Your task to perform on an android device: change timer sound Image 0: 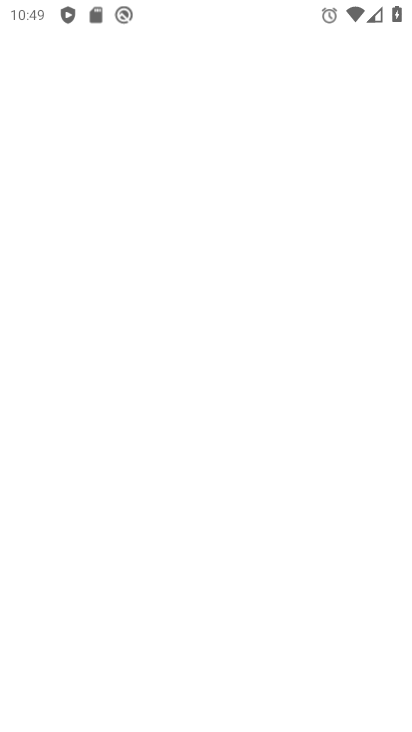
Step 0: drag from (341, 575) to (301, 154)
Your task to perform on an android device: change timer sound Image 1: 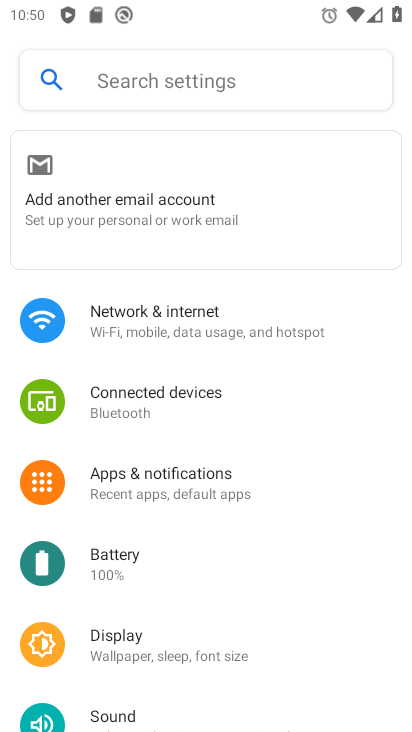
Step 1: click (170, 82)
Your task to perform on an android device: change timer sound Image 2: 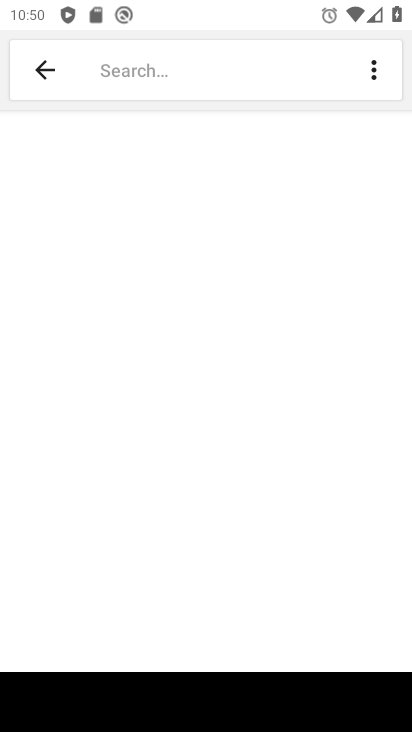
Step 2: press home button
Your task to perform on an android device: change timer sound Image 3: 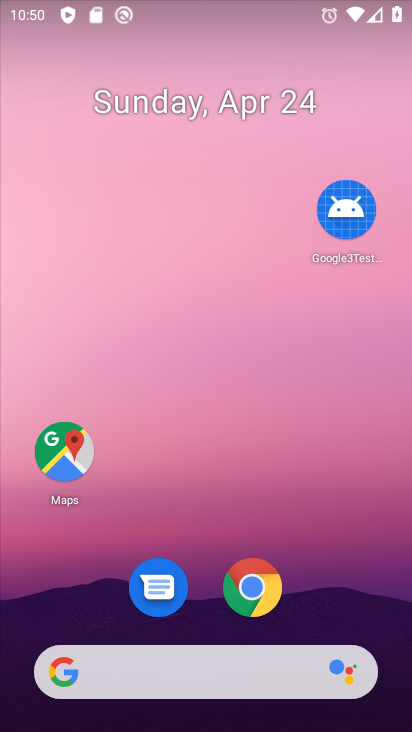
Step 3: drag from (376, 582) to (319, 37)
Your task to perform on an android device: change timer sound Image 4: 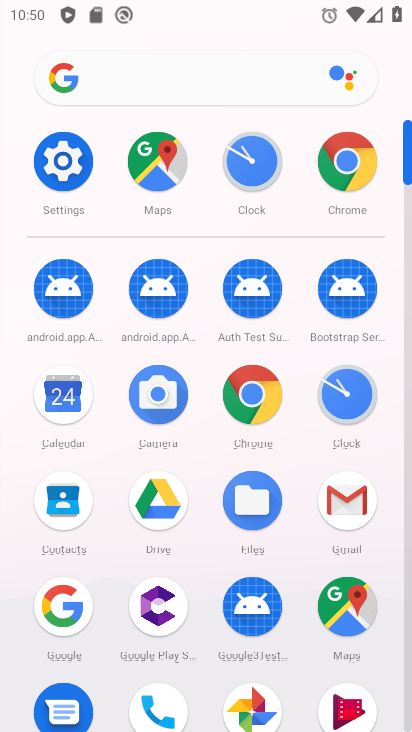
Step 4: drag from (291, 558) to (303, 199)
Your task to perform on an android device: change timer sound Image 5: 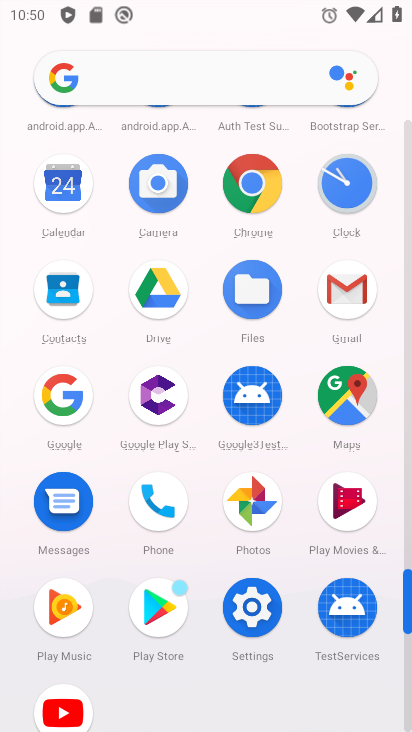
Step 5: click (342, 187)
Your task to perform on an android device: change timer sound Image 6: 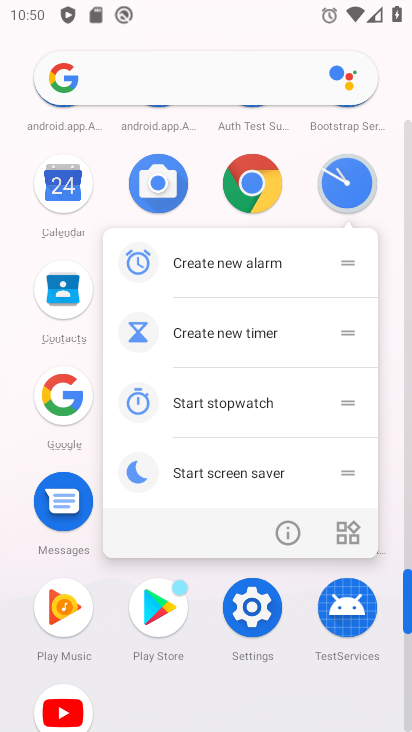
Step 6: click (333, 192)
Your task to perform on an android device: change timer sound Image 7: 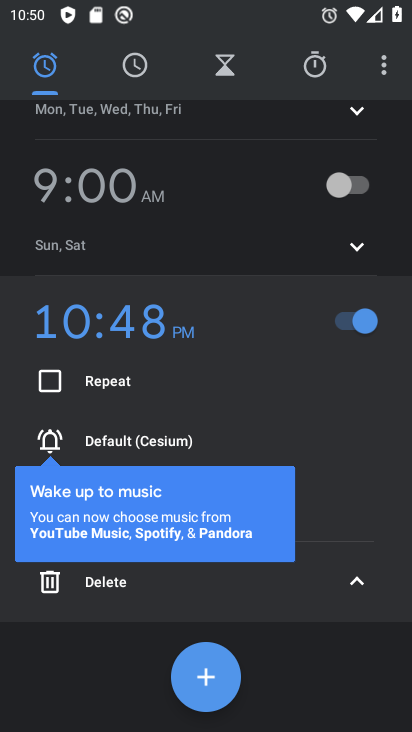
Step 7: click (390, 71)
Your task to perform on an android device: change timer sound Image 8: 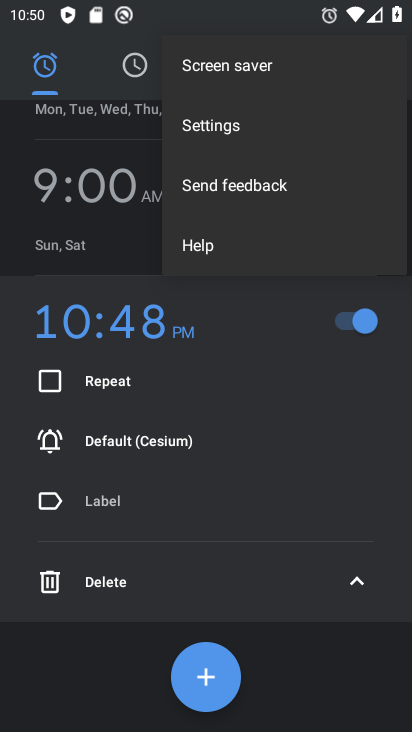
Step 8: click (247, 122)
Your task to perform on an android device: change timer sound Image 9: 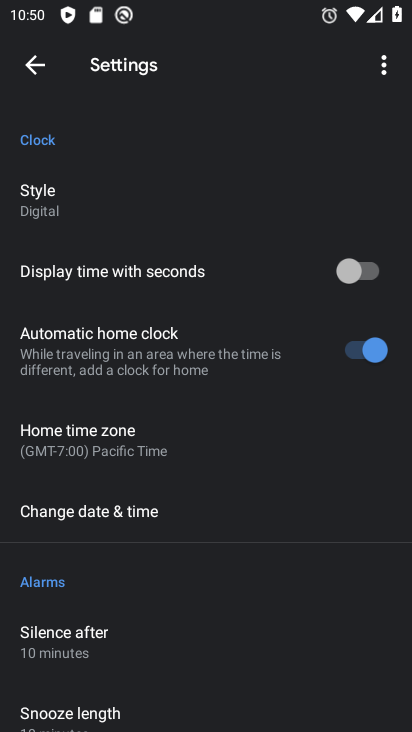
Step 9: drag from (206, 623) to (211, 269)
Your task to perform on an android device: change timer sound Image 10: 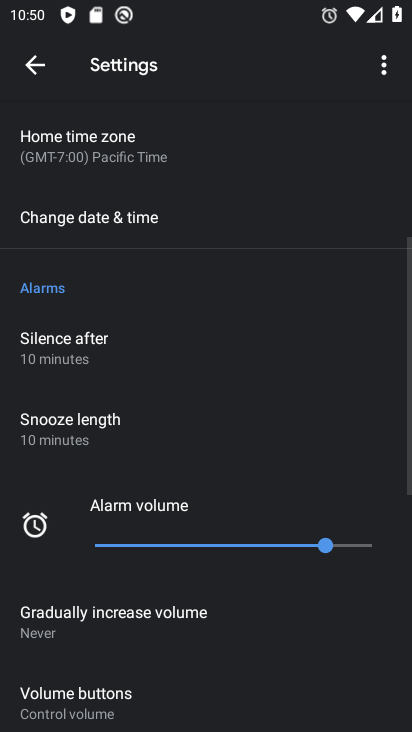
Step 10: drag from (209, 677) to (193, 359)
Your task to perform on an android device: change timer sound Image 11: 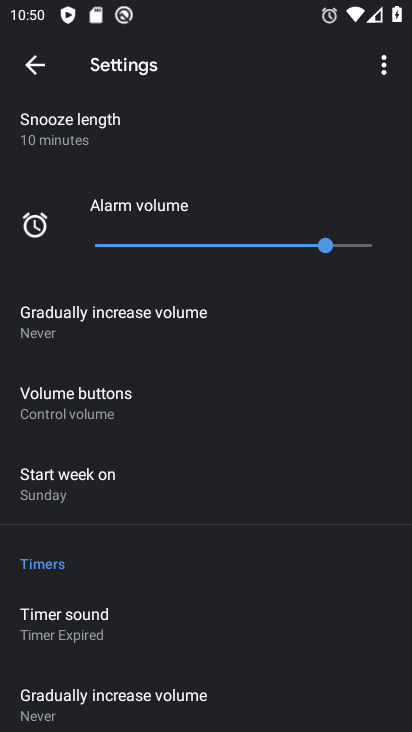
Step 11: drag from (246, 655) to (262, 400)
Your task to perform on an android device: change timer sound Image 12: 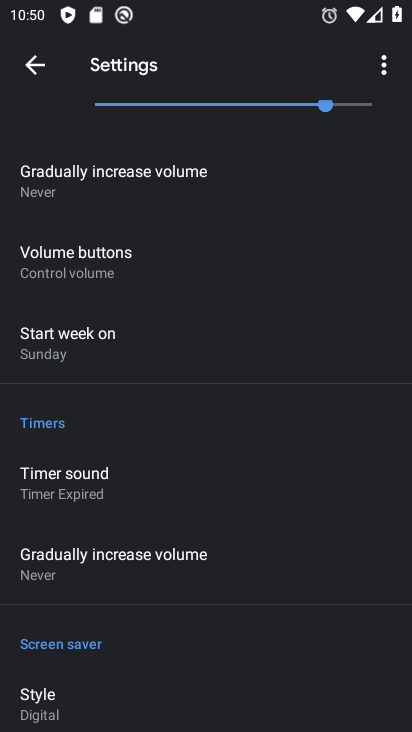
Step 12: click (130, 494)
Your task to perform on an android device: change timer sound Image 13: 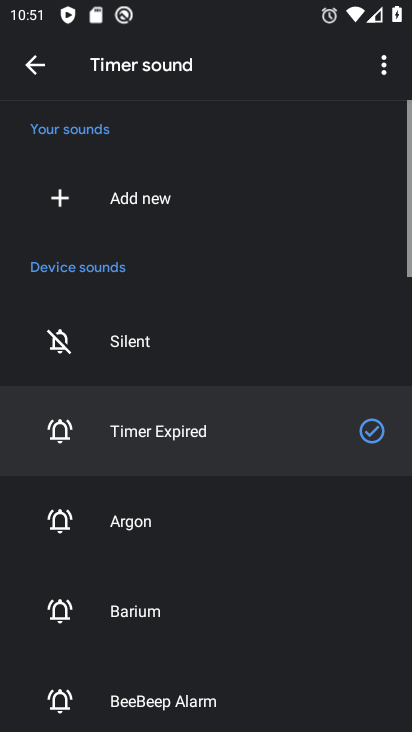
Step 13: click (137, 527)
Your task to perform on an android device: change timer sound Image 14: 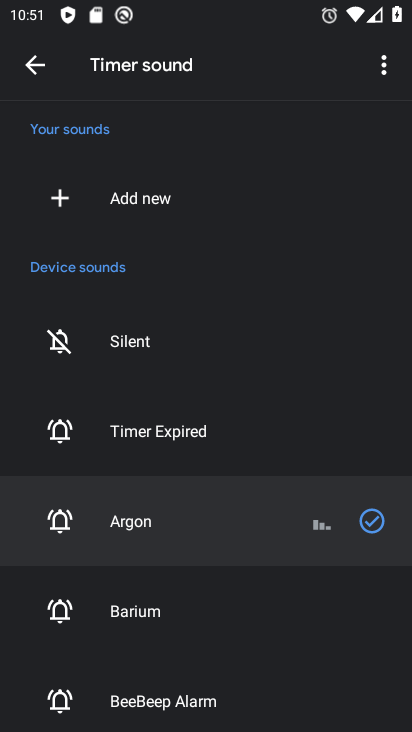
Step 14: task complete